Your task to perform on an android device: Open Chrome and go to settings Image 0: 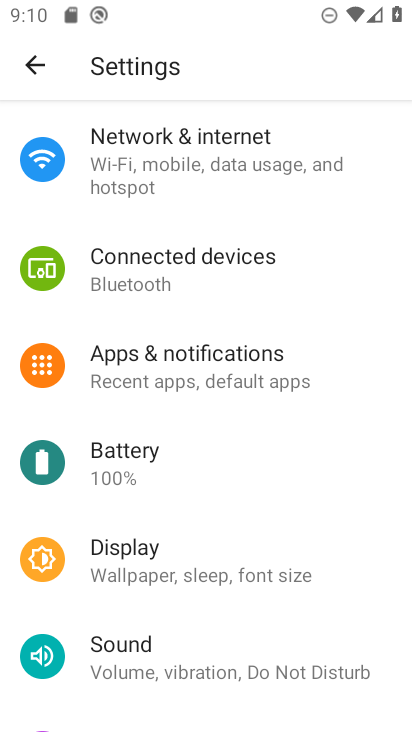
Step 0: press home button
Your task to perform on an android device: Open Chrome and go to settings Image 1: 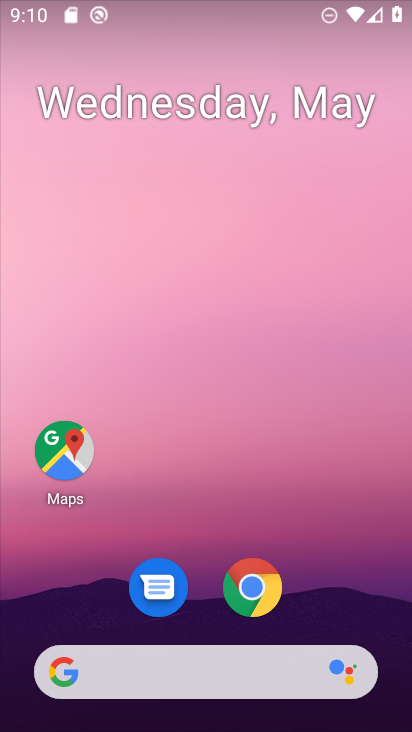
Step 1: click (256, 585)
Your task to perform on an android device: Open Chrome and go to settings Image 2: 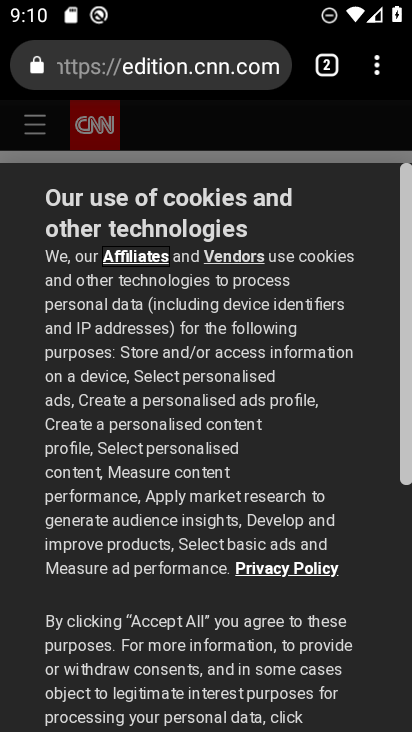
Step 2: click (377, 75)
Your task to perform on an android device: Open Chrome and go to settings Image 3: 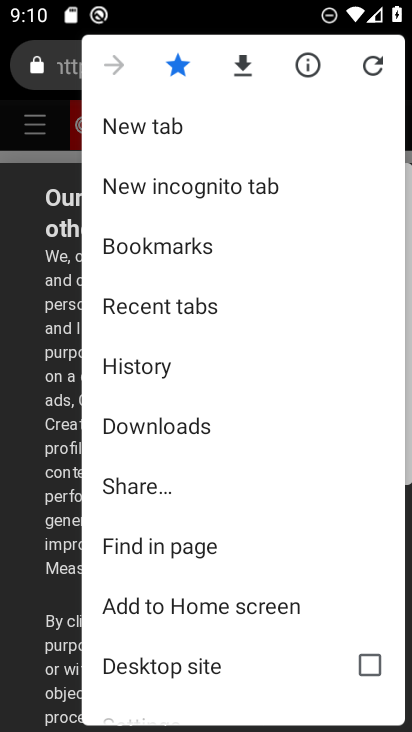
Step 3: drag from (166, 660) to (182, 315)
Your task to perform on an android device: Open Chrome and go to settings Image 4: 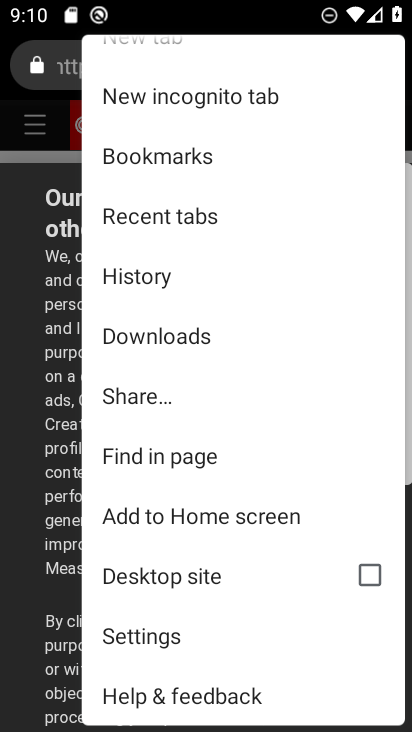
Step 4: click (140, 630)
Your task to perform on an android device: Open Chrome and go to settings Image 5: 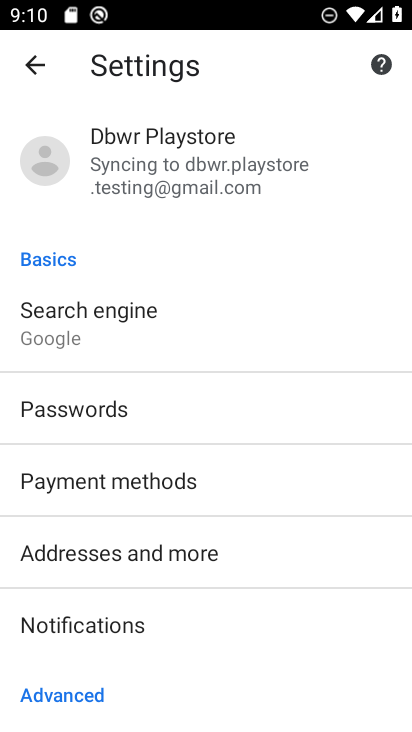
Step 5: task complete